Your task to perform on an android device: Open sound settings Image 0: 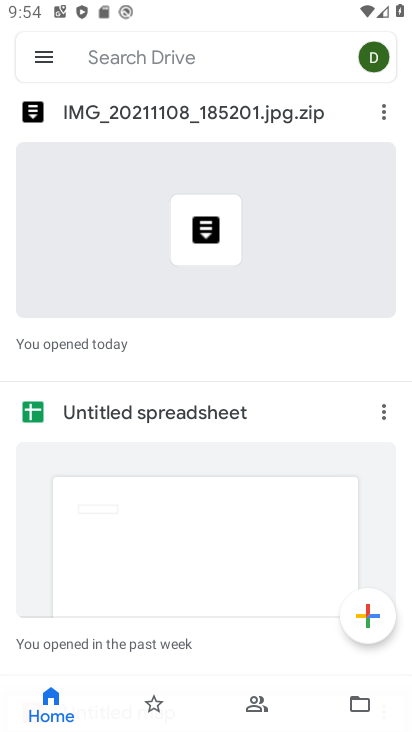
Step 0: press home button
Your task to perform on an android device: Open sound settings Image 1: 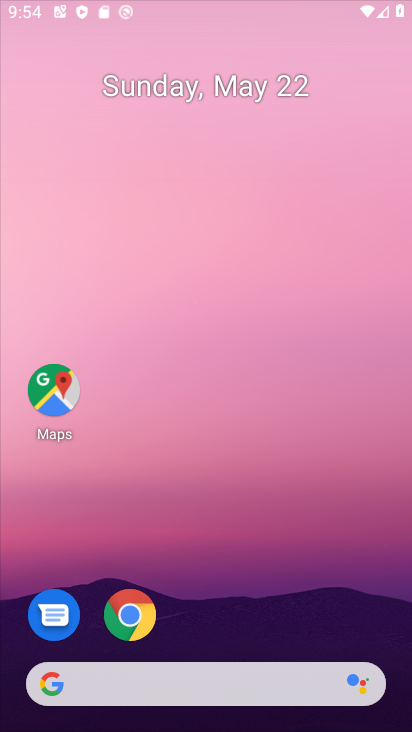
Step 1: drag from (257, 524) to (268, 9)
Your task to perform on an android device: Open sound settings Image 2: 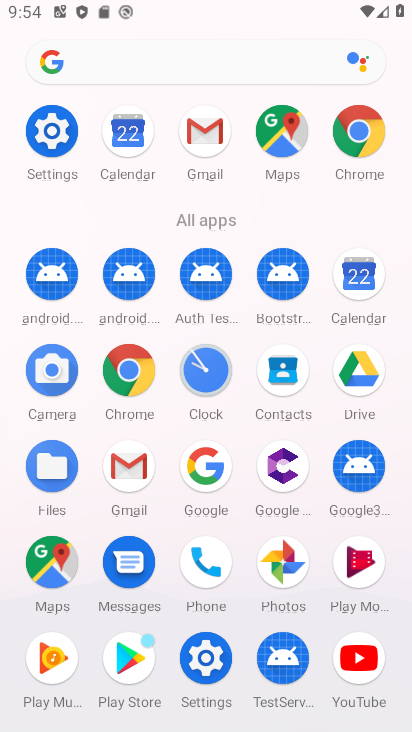
Step 2: click (55, 132)
Your task to perform on an android device: Open sound settings Image 3: 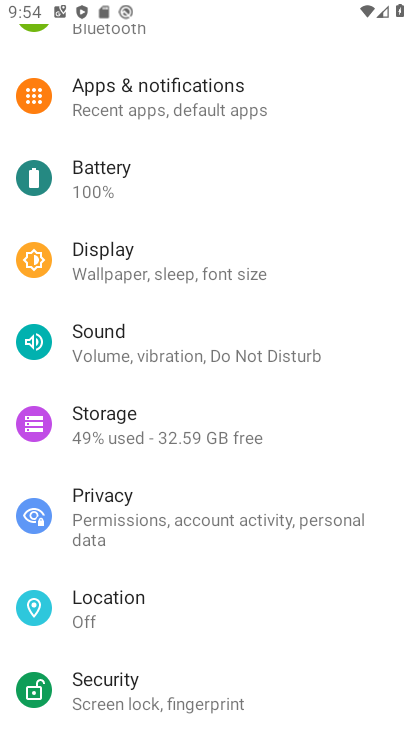
Step 3: drag from (138, 620) to (228, 191)
Your task to perform on an android device: Open sound settings Image 4: 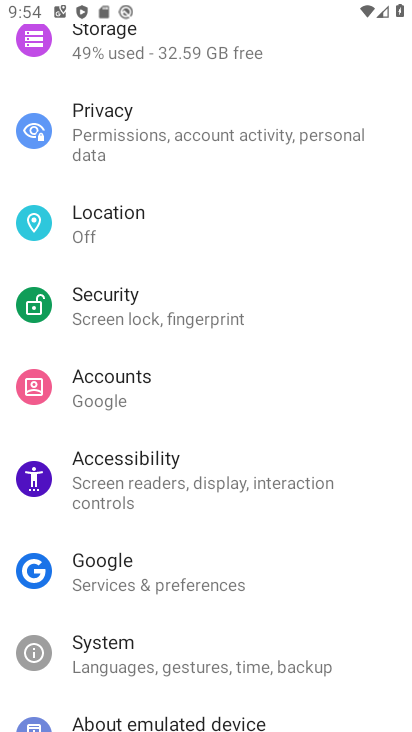
Step 4: drag from (228, 197) to (169, 522)
Your task to perform on an android device: Open sound settings Image 5: 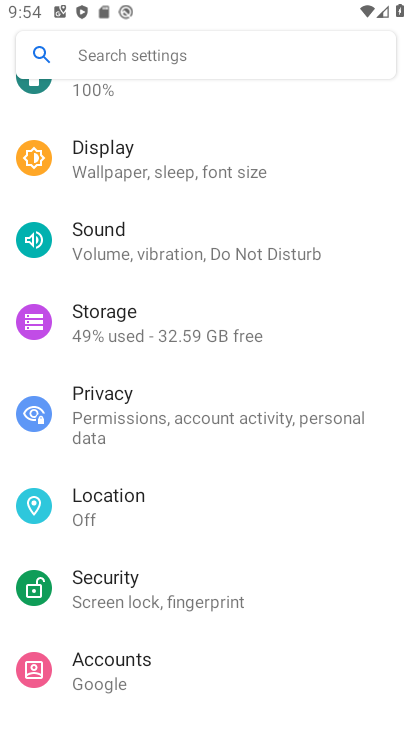
Step 5: click (151, 261)
Your task to perform on an android device: Open sound settings Image 6: 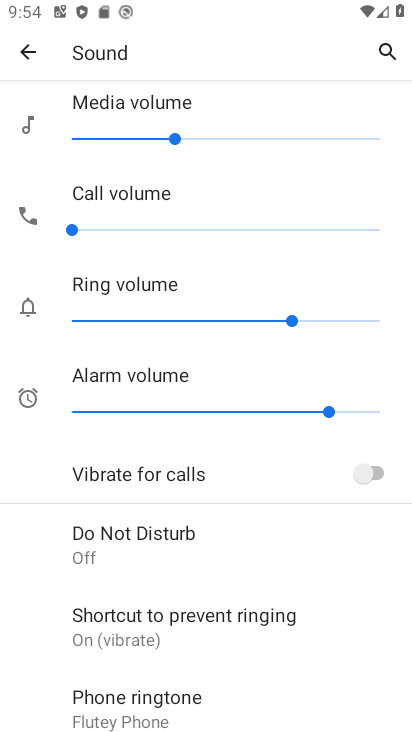
Step 6: task complete